Your task to perform on an android device: What is the news today? Image 0: 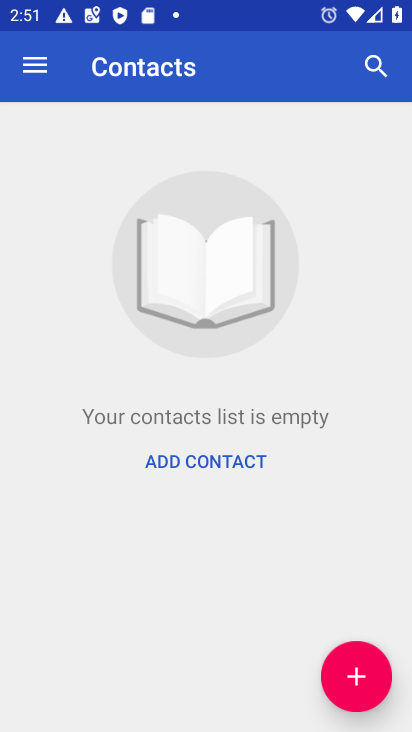
Step 0: press home button
Your task to perform on an android device: What is the news today? Image 1: 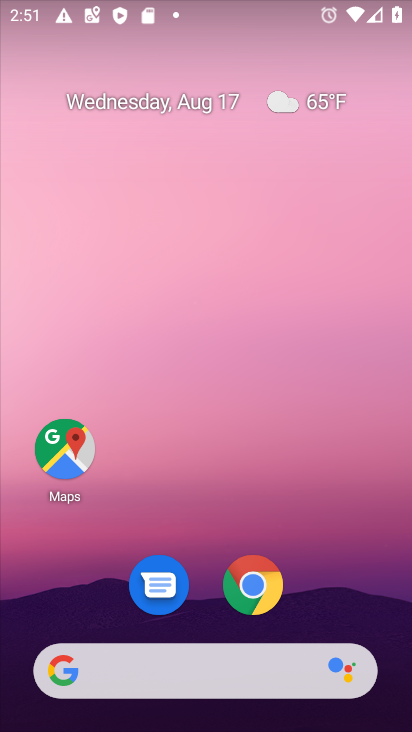
Step 1: click (188, 662)
Your task to perform on an android device: What is the news today? Image 2: 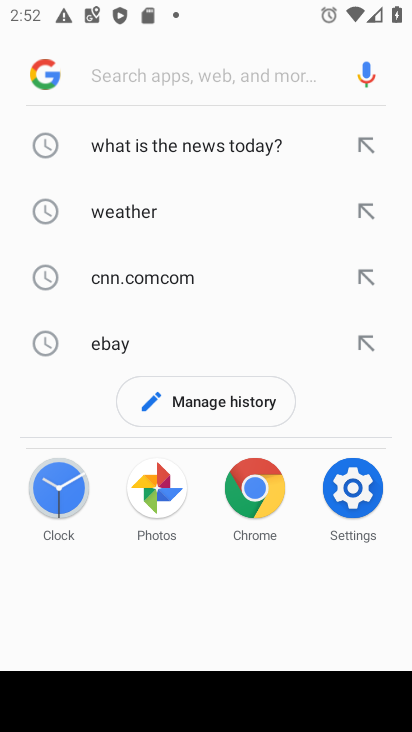
Step 2: click (224, 152)
Your task to perform on an android device: What is the news today? Image 3: 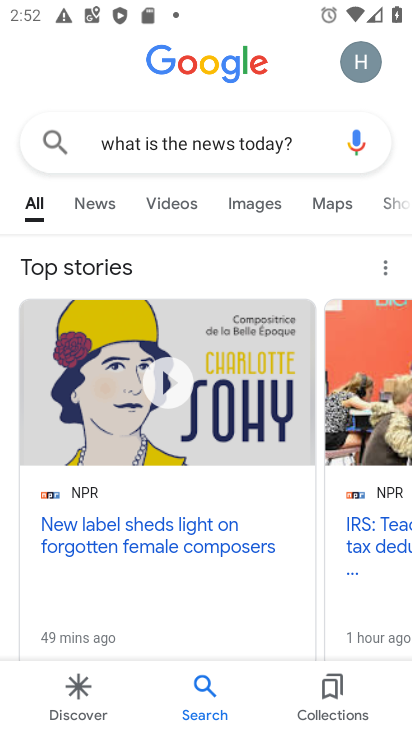
Step 3: click (101, 203)
Your task to perform on an android device: What is the news today? Image 4: 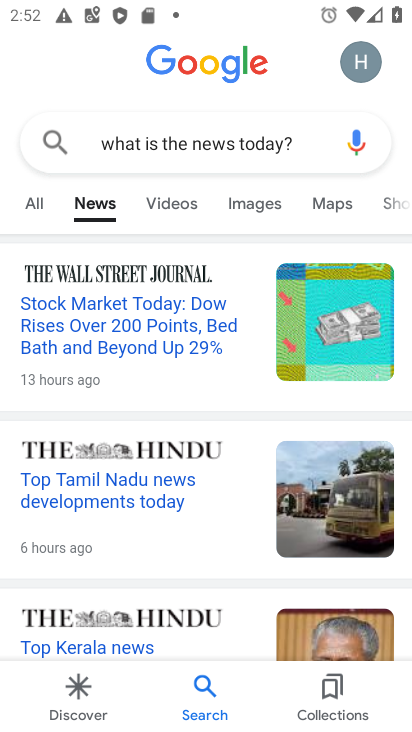
Step 4: task complete